Your task to perform on an android device: Go to eBay Image 0: 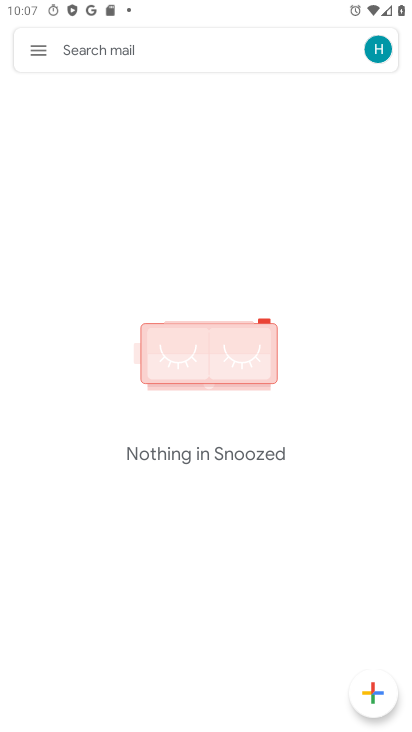
Step 0: press home button
Your task to perform on an android device: Go to eBay Image 1: 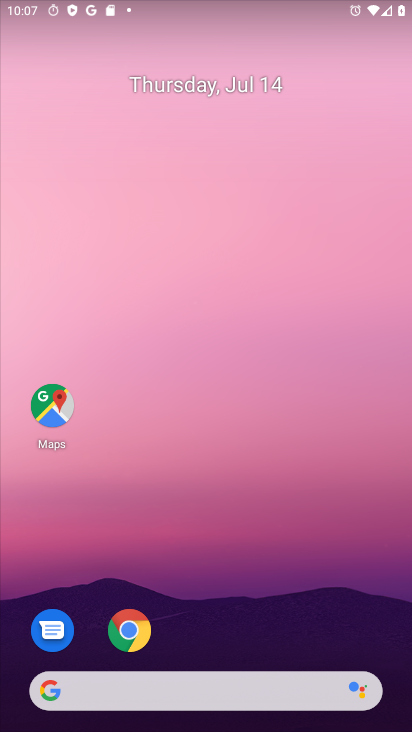
Step 1: click (104, 680)
Your task to perform on an android device: Go to eBay Image 2: 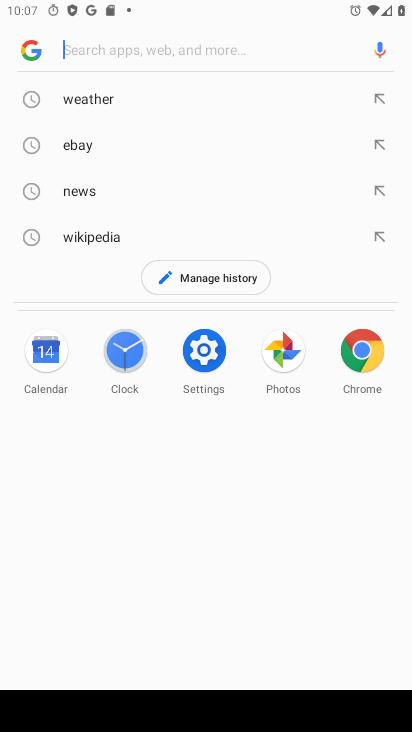
Step 2: click (92, 147)
Your task to perform on an android device: Go to eBay Image 3: 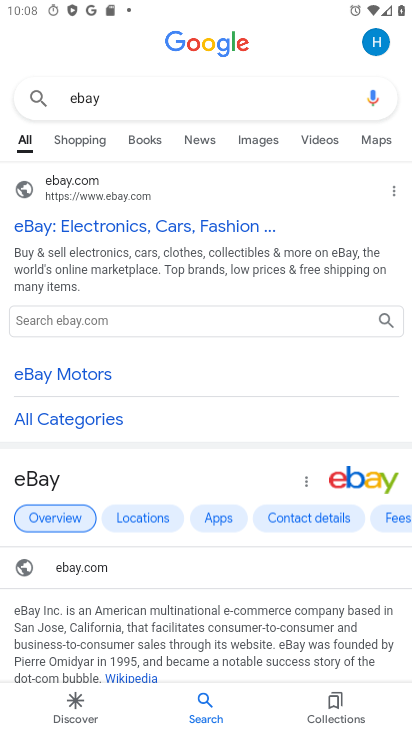
Step 3: task complete